Your task to perform on an android device: Do I have any events today? Image 0: 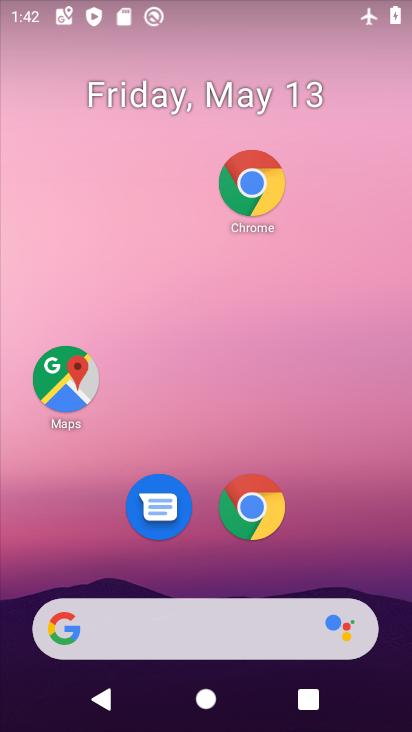
Step 0: drag from (357, 630) to (273, 199)
Your task to perform on an android device: Do I have any events today? Image 1: 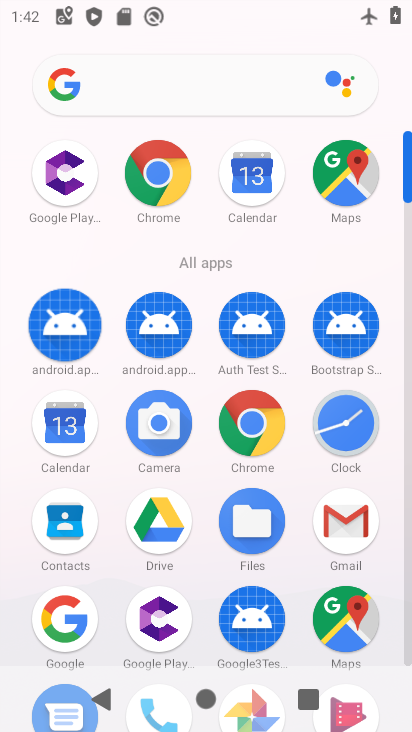
Step 1: click (55, 425)
Your task to perform on an android device: Do I have any events today? Image 2: 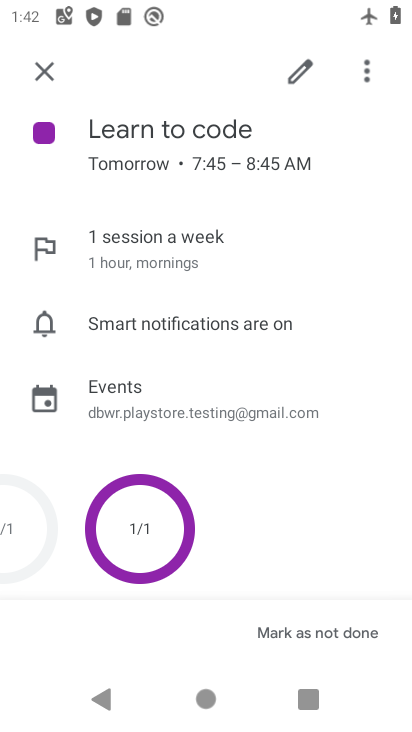
Step 2: click (45, 69)
Your task to perform on an android device: Do I have any events today? Image 3: 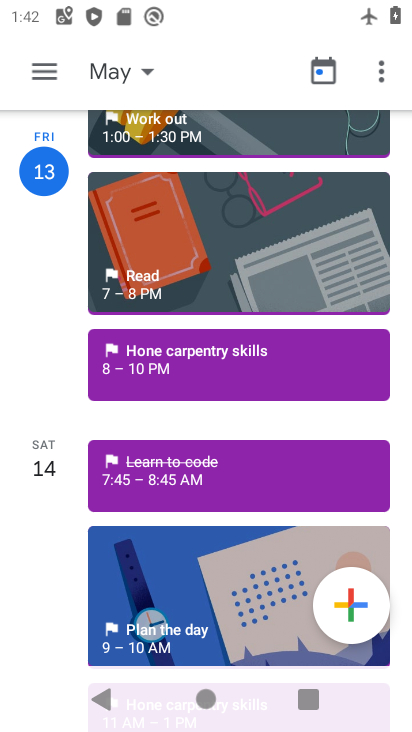
Step 3: drag from (152, 193) to (166, 236)
Your task to perform on an android device: Do I have any events today? Image 4: 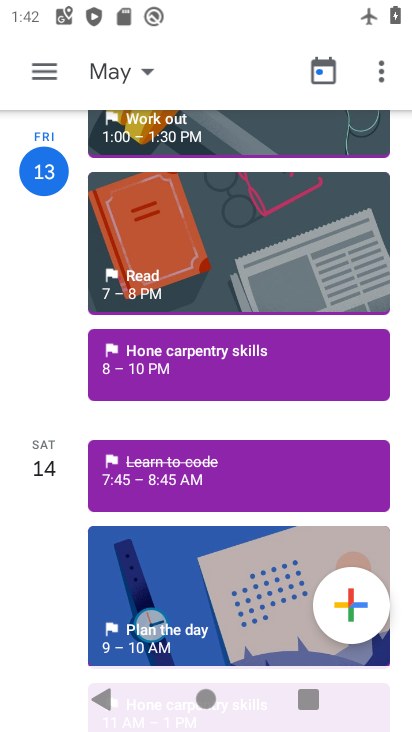
Step 4: click (212, 308)
Your task to perform on an android device: Do I have any events today? Image 5: 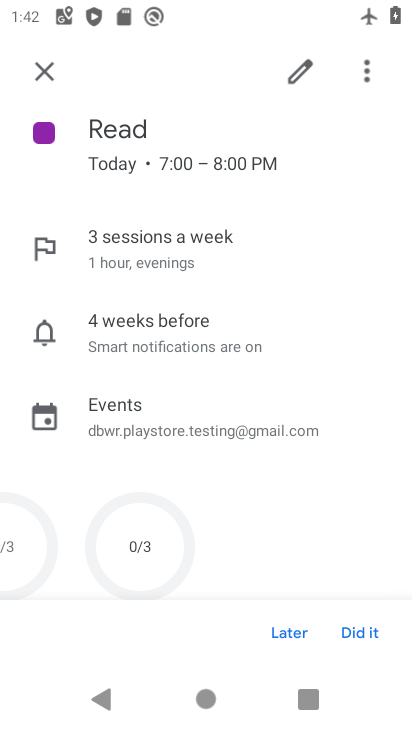
Step 5: task complete